Your task to perform on an android device: toggle improve location accuracy Image 0: 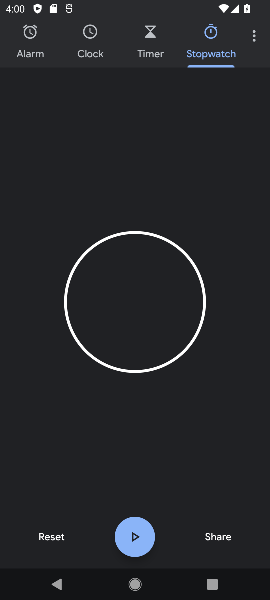
Step 0: press back button
Your task to perform on an android device: toggle improve location accuracy Image 1: 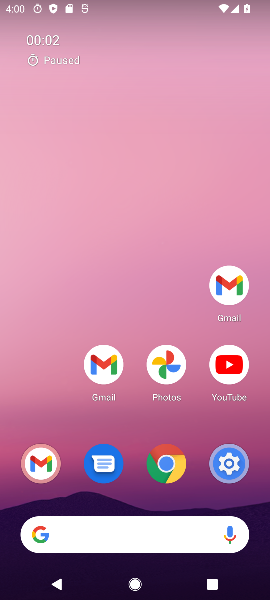
Step 1: drag from (180, 505) to (137, 226)
Your task to perform on an android device: toggle improve location accuracy Image 2: 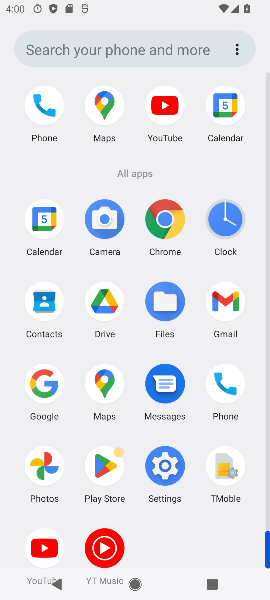
Step 2: click (164, 462)
Your task to perform on an android device: toggle improve location accuracy Image 3: 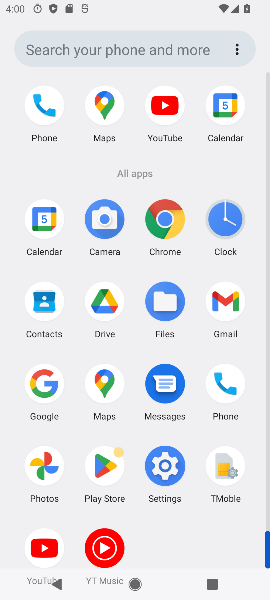
Step 3: click (169, 466)
Your task to perform on an android device: toggle improve location accuracy Image 4: 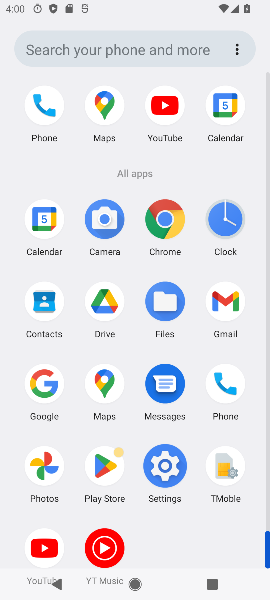
Step 4: click (169, 468)
Your task to perform on an android device: toggle improve location accuracy Image 5: 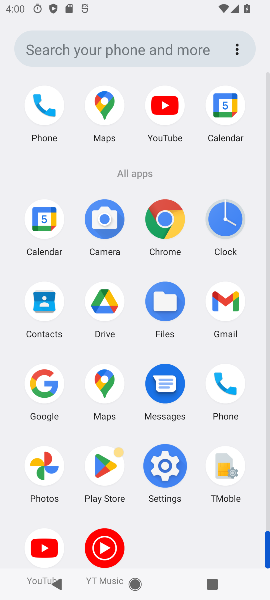
Step 5: click (169, 468)
Your task to perform on an android device: toggle improve location accuracy Image 6: 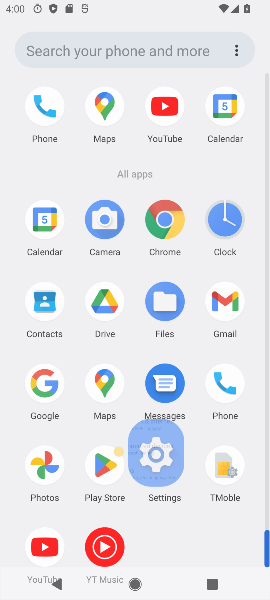
Step 6: click (169, 468)
Your task to perform on an android device: toggle improve location accuracy Image 7: 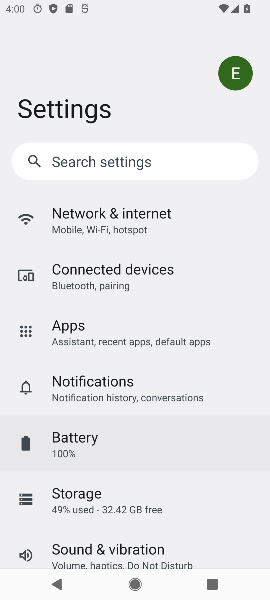
Step 7: click (169, 470)
Your task to perform on an android device: toggle improve location accuracy Image 8: 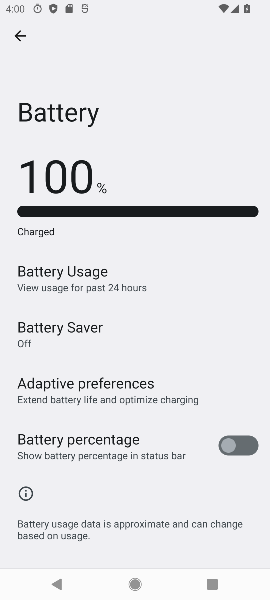
Step 8: press back button
Your task to perform on an android device: toggle improve location accuracy Image 9: 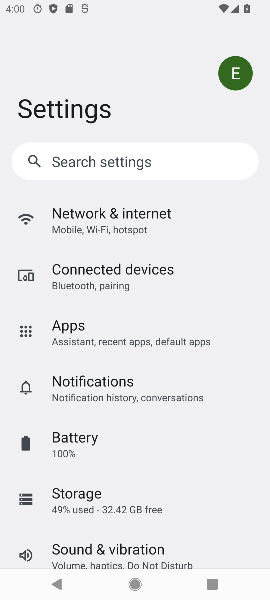
Step 9: press back button
Your task to perform on an android device: toggle improve location accuracy Image 10: 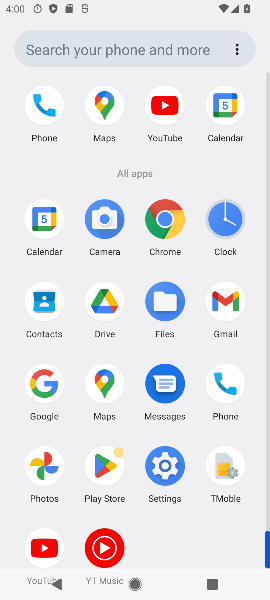
Step 10: click (161, 458)
Your task to perform on an android device: toggle improve location accuracy Image 11: 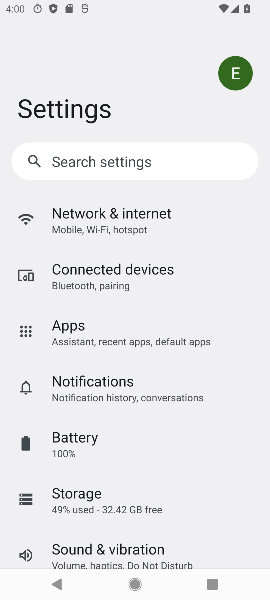
Step 11: drag from (114, 455) to (72, 165)
Your task to perform on an android device: toggle improve location accuracy Image 12: 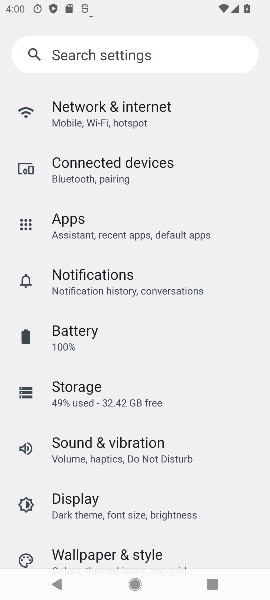
Step 12: drag from (137, 397) to (121, 226)
Your task to perform on an android device: toggle improve location accuracy Image 13: 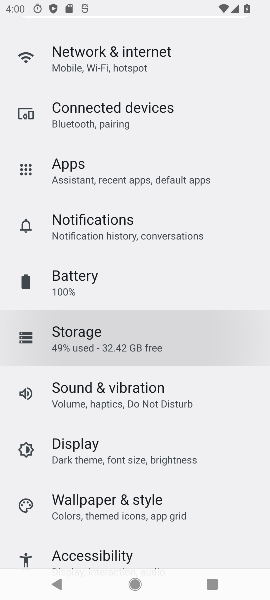
Step 13: drag from (125, 328) to (125, 222)
Your task to perform on an android device: toggle improve location accuracy Image 14: 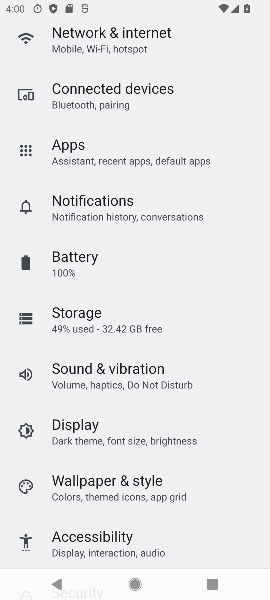
Step 14: drag from (156, 421) to (155, 181)
Your task to perform on an android device: toggle improve location accuracy Image 15: 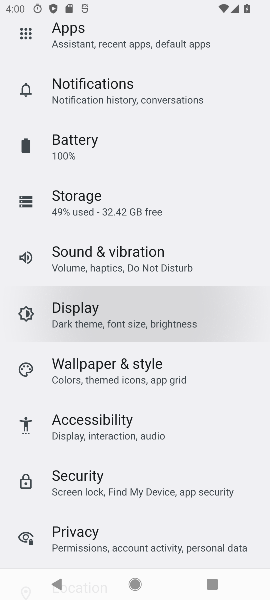
Step 15: drag from (143, 379) to (157, 258)
Your task to perform on an android device: toggle improve location accuracy Image 16: 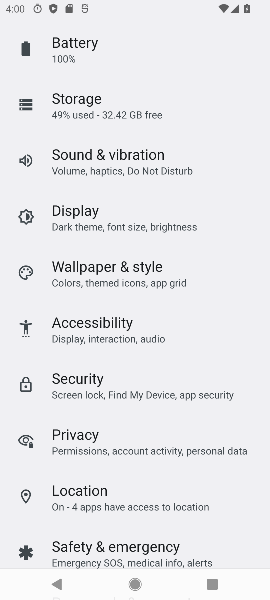
Step 16: click (93, 498)
Your task to perform on an android device: toggle improve location accuracy Image 17: 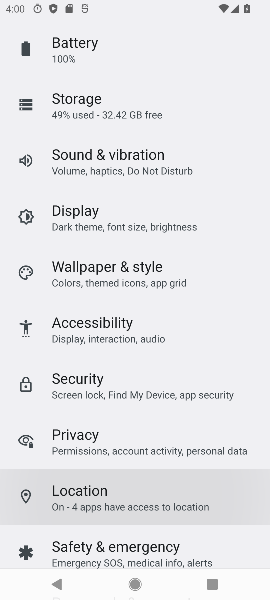
Step 17: click (101, 491)
Your task to perform on an android device: toggle improve location accuracy Image 18: 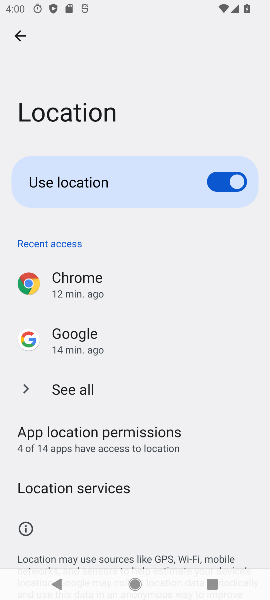
Step 18: drag from (102, 439) to (107, 273)
Your task to perform on an android device: toggle improve location accuracy Image 19: 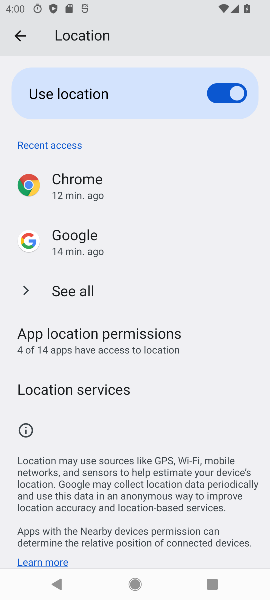
Step 19: click (99, 346)
Your task to perform on an android device: toggle improve location accuracy Image 20: 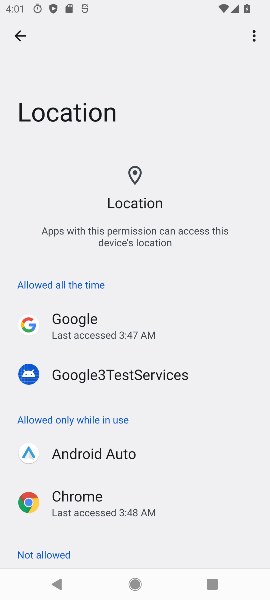
Step 20: click (16, 37)
Your task to perform on an android device: toggle improve location accuracy Image 21: 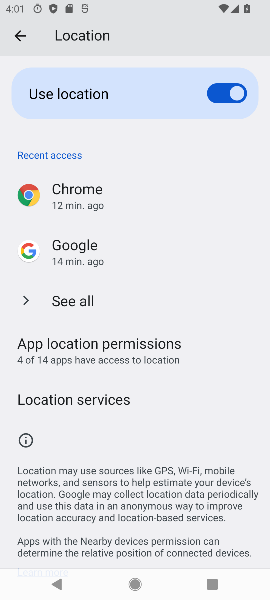
Step 21: drag from (115, 480) to (95, 382)
Your task to perform on an android device: toggle improve location accuracy Image 22: 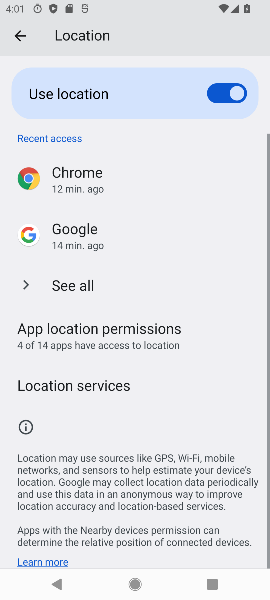
Step 22: click (94, 389)
Your task to perform on an android device: toggle improve location accuracy Image 23: 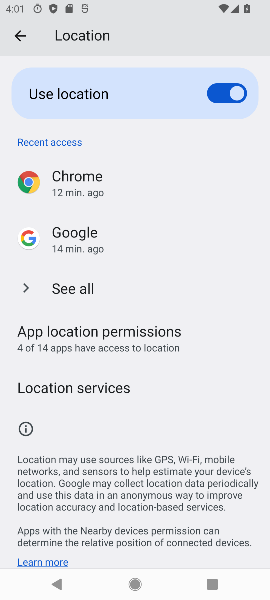
Step 23: click (94, 389)
Your task to perform on an android device: toggle improve location accuracy Image 24: 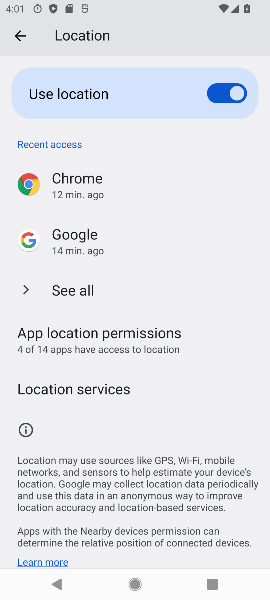
Step 24: drag from (136, 449) to (139, 261)
Your task to perform on an android device: toggle improve location accuracy Image 25: 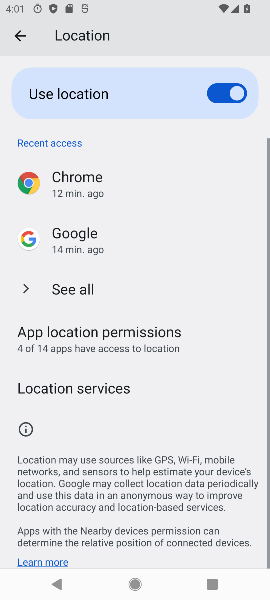
Step 25: drag from (152, 392) to (125, 181)
Your task to perform on an android device: toggle improve location accuracy Image 26: 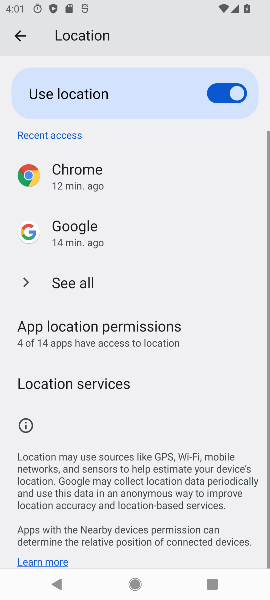
Step 26: drag from (89, 396) to (115, 99)
Your task to perform on an android device: toggle improve location accuracy Image 27: 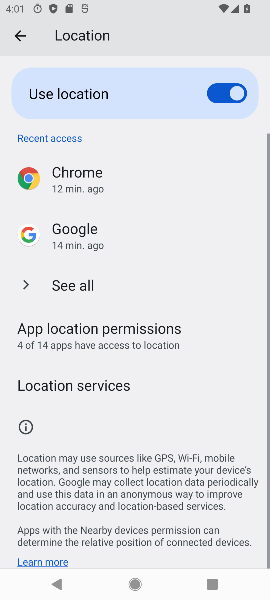
Step 27: click (159, 66)
Your task to perform on an android device: toggle improve location accuracy Image 28: 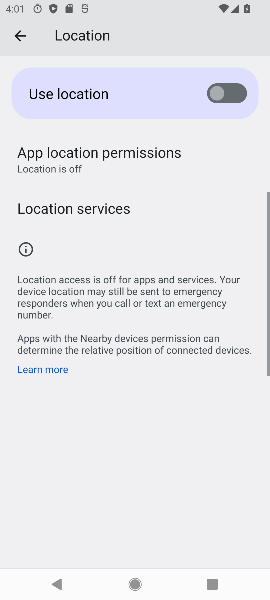
Step 28: task complete